Your task to perform on an android device: Go to Maps Image 0: 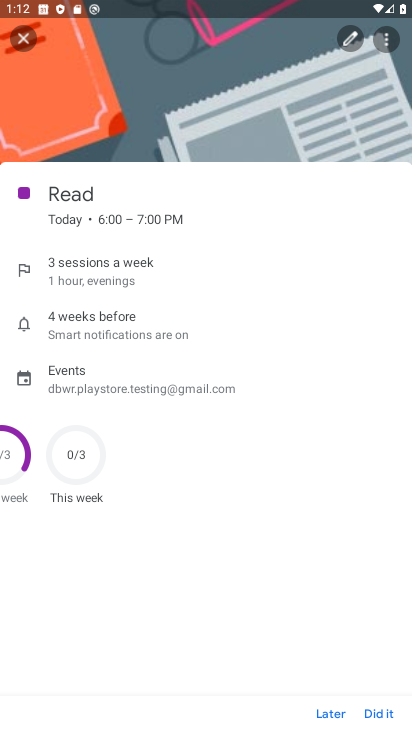
Step 0: press home button
Your task to perform on an android device: Go to Maps Image 1: 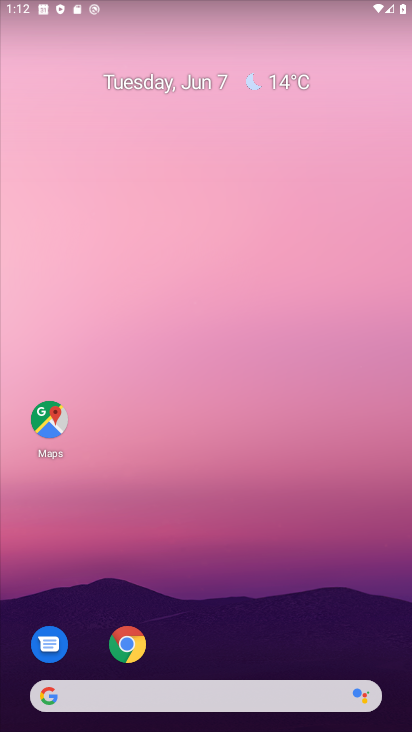
Step 1: click (55, 415)
Your task to perform on an android device: Go to Maps Image 2: 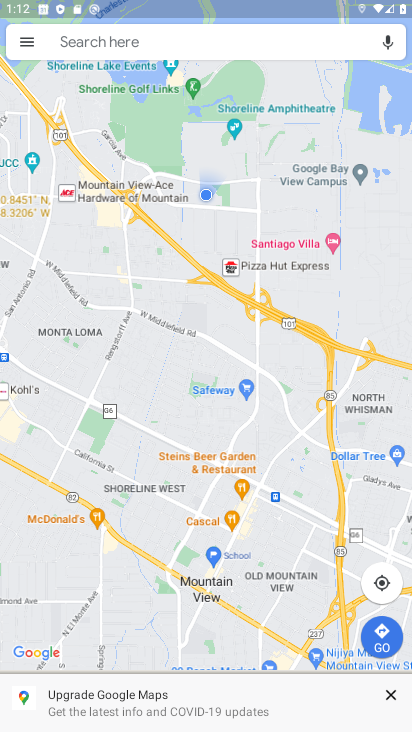
Step 2: task complete